Your task to perform on an android device: What is the recent news? Image 0: 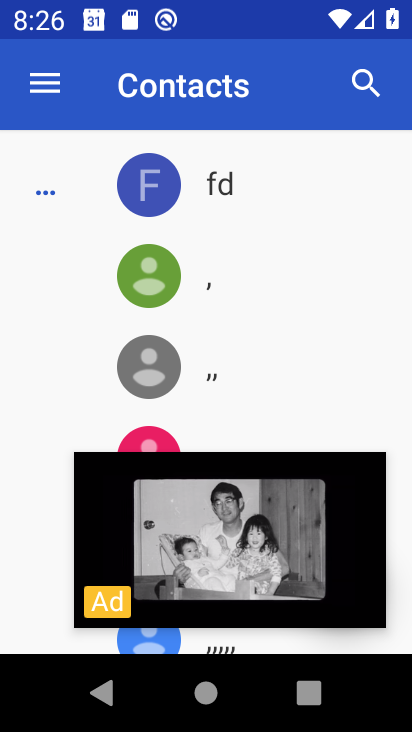
Step 0: click (310, 502)
Your task to perform on an android device: What is the recent news? Image 1: 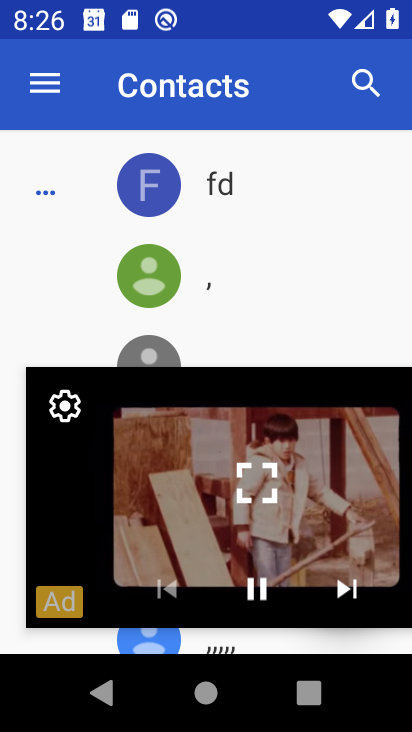
Step 1: click (295, 445)
Your task to perform on an android device: What is the recent news? Image 2: 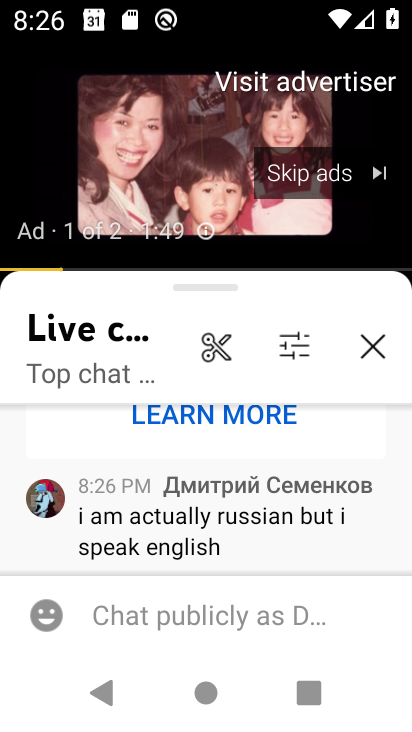
Step 2: press back button
Your task to perform on an android device: What is the recent news? Image 3: 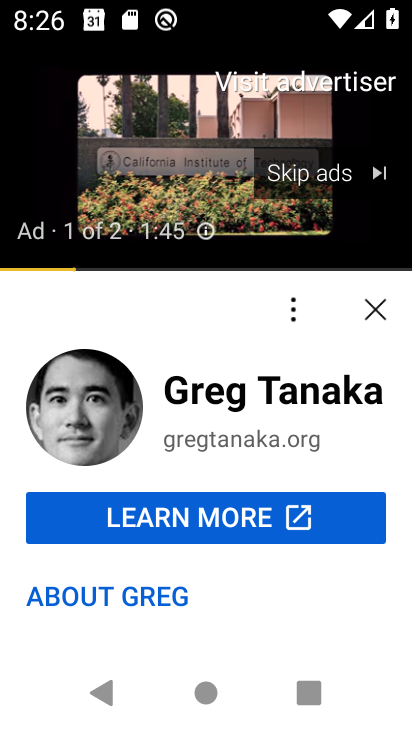
Step 3: press home button
Your task to perform on an android device: What is the recent news? Image 4: 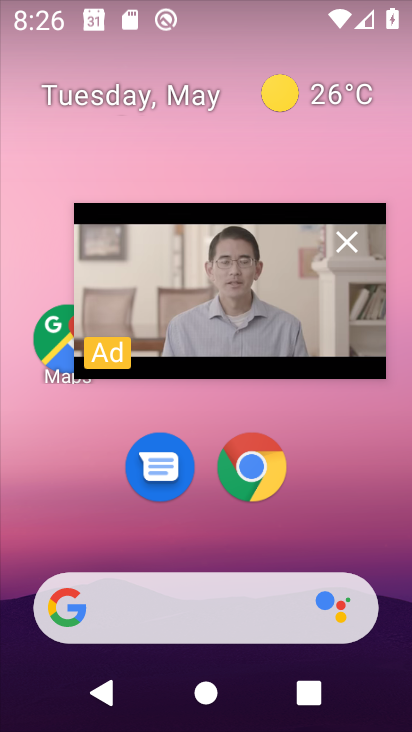
Step 4: click (339, 241)
Your task to perform on an android device: What is the recent news? Image 5: 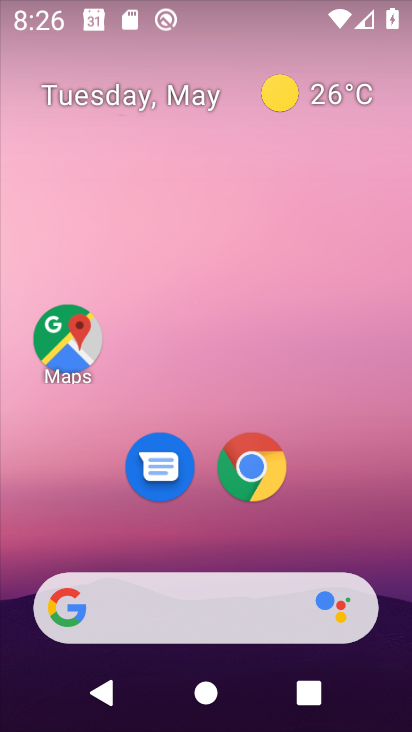
Step 5: drag from (0, 257) to (378, 228)
Your task to perform on an android device: What is the recent news? Image 6: 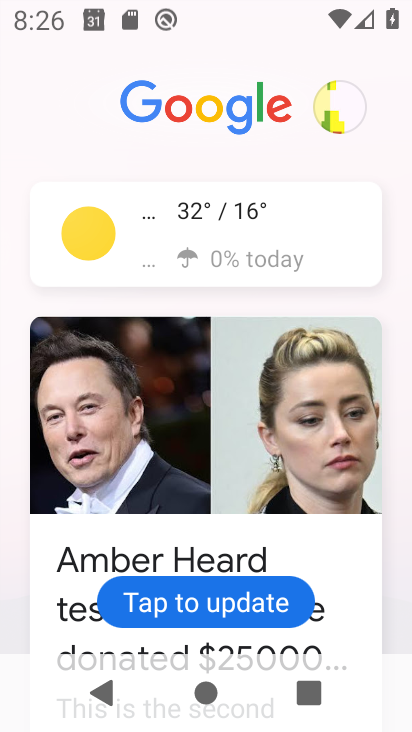
Step 6: drag from (317, 575) to (305, 179)
Your task to perform on an android device: What is the recent news? Image 7: 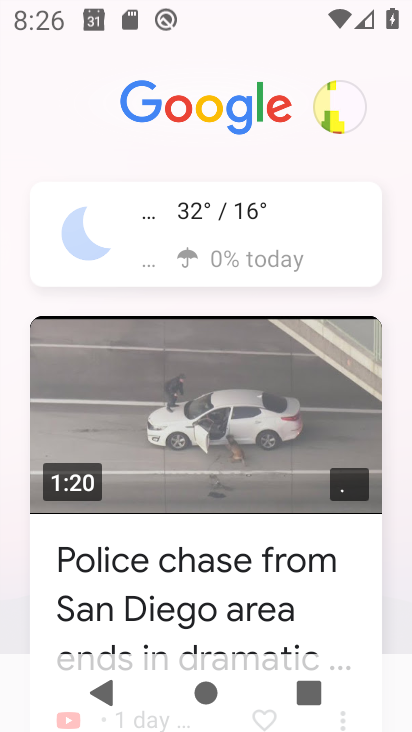
Step 7: drag from (235, 600) to (242, 297)
Your task to perform on an android device: What is the recent news? Image 8: 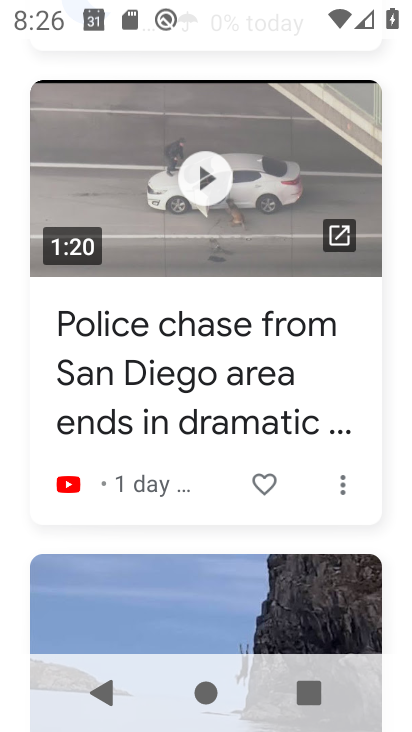
Step 8: drag from (184, 617) to (200, 172)
Your task to perform on an android device: What is the recent news? Image 9: 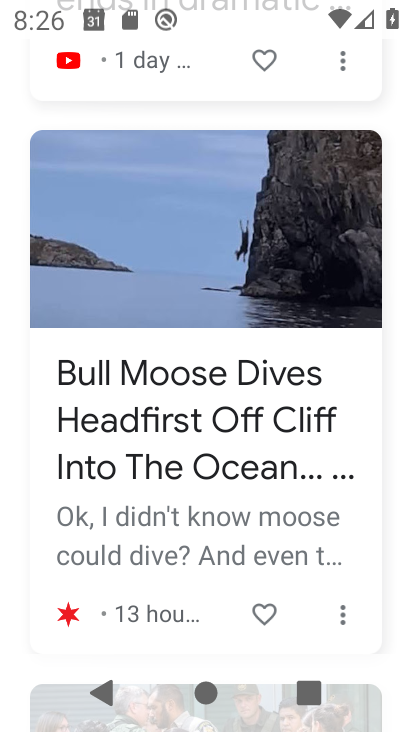
Step 9: drag from (175, 577) to (182, 420)
Your task to perform on an android device: What is the recent news? Image 10: 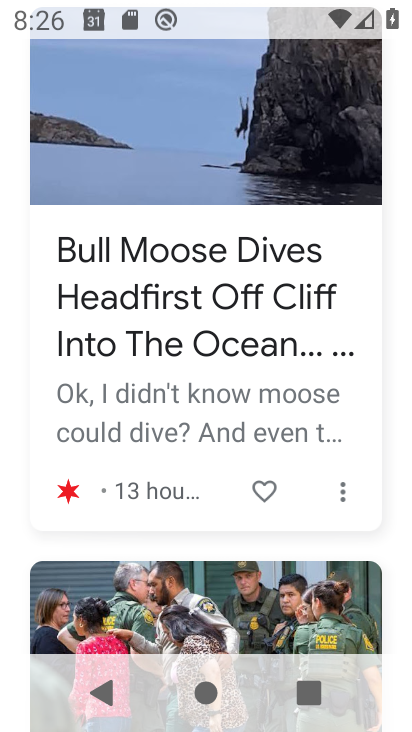
Step 10: click (189, 401)
Your task to perform on an android device: What is the recent news? Image 11: 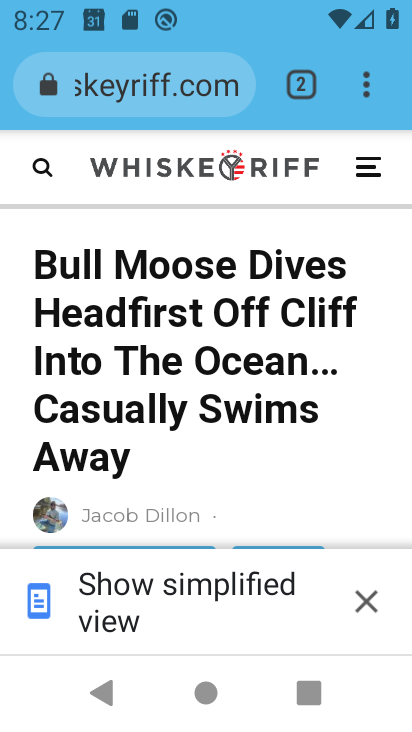
Step 11: task complete